Your task to perform on an android device: toggle data saver in the chrome app Image 0: 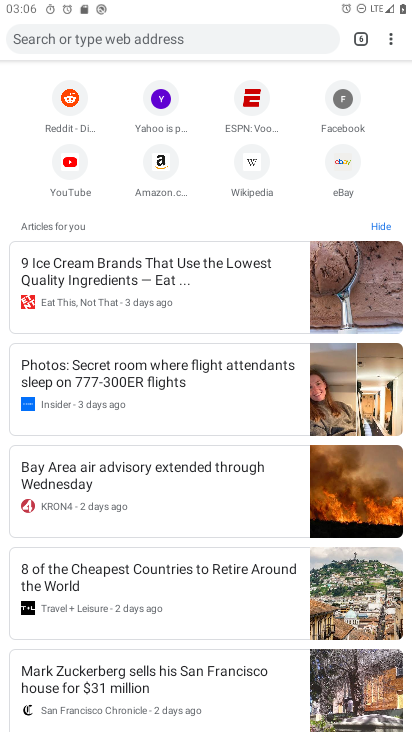
Step 0: drag from (396, 39) to (265, 325)
Your task to perform on an android device: toggle data saver in the chrome app Image 1: 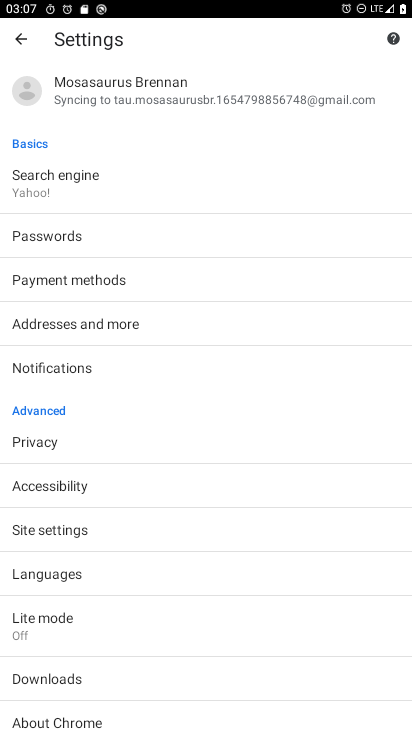
Step 1: click (37, 633)
Your task to perform on an android device: toggle data saver in the chrome app Image 2: 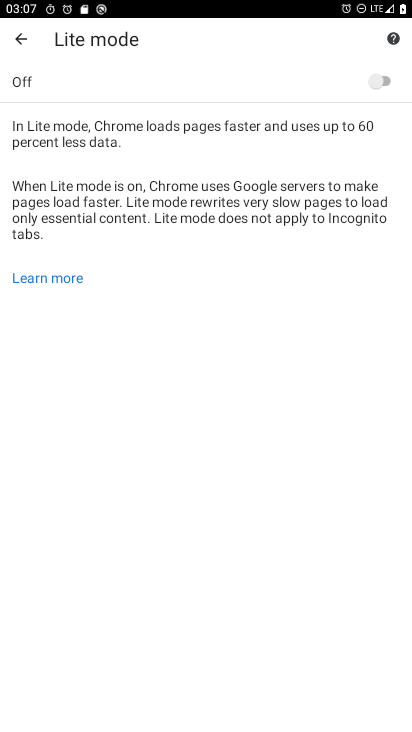
Step 2: click (382, 82)
Your task to perform on an android device: toggle data saver in the chrome app Image 3: 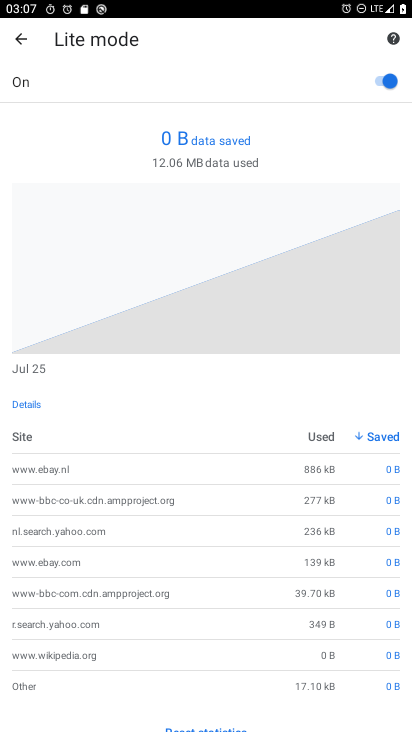
Step 3: task complete